Your task to perform on an android device: Is it going to rain tomorrow? Image 0: 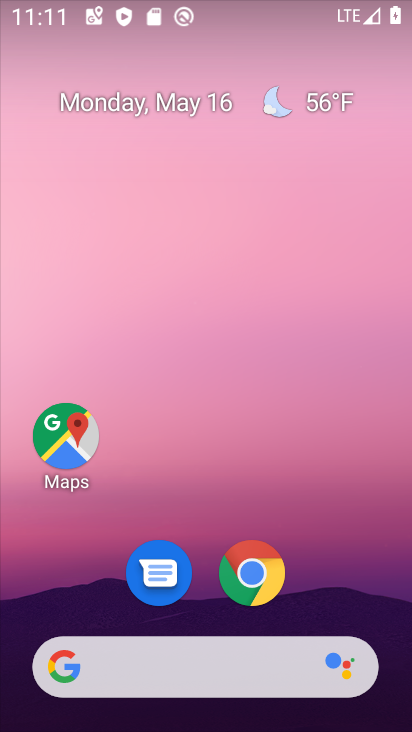
Step 0: drag from (162, 723) to (50, 723)
Your task to perform on an android device: Is it going to rain tomorrow? Image 1: 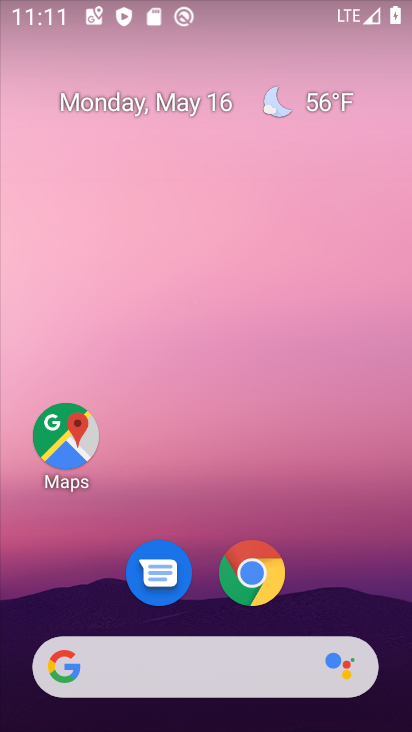
Step 1: click (187, 663)
Your task to perform on an android device: Is it going to rain tomorrow? Image 2: 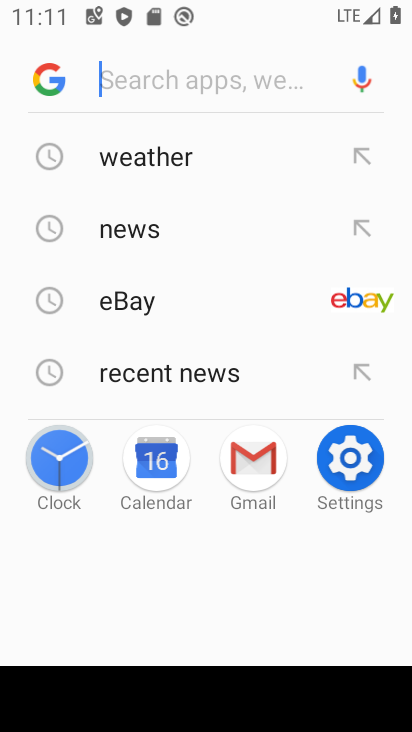
Step 2: type " Is it going to rain tomorrow?"
Your task to perform on an android device: Is it going to rain tomorrow? Image 3: 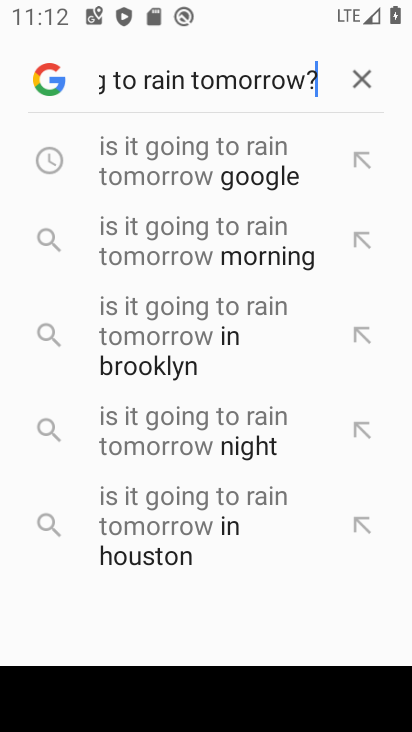
Step 3: click (288, 151)
Your task to perform on an android device: Is it going to rain tomorrow? Image 4: 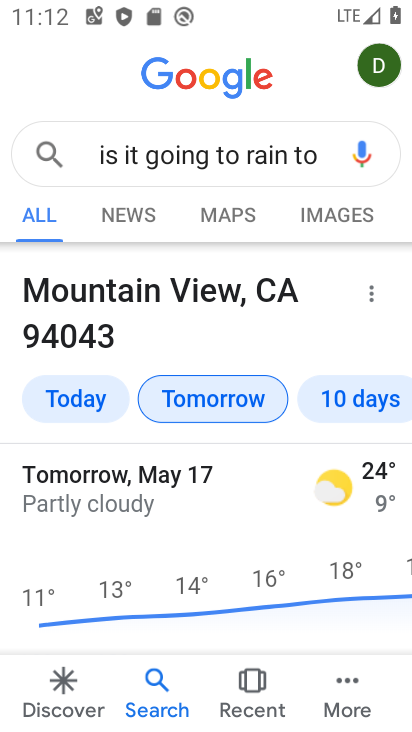
Step 4: task complete